Your task to perform on an android device: Open CNN.com Image 0: 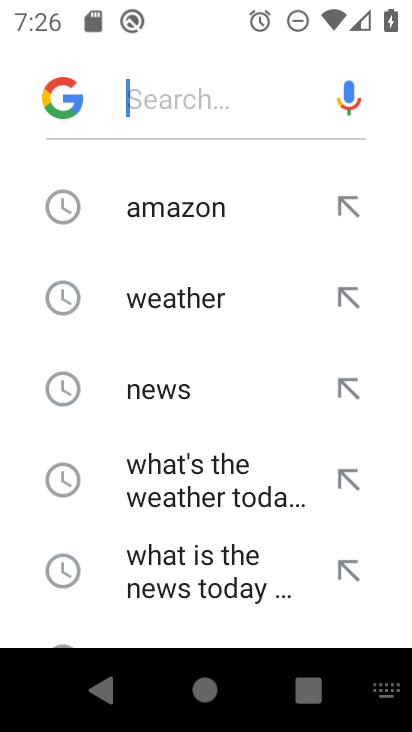
Step 0: press home button
Your task to perform on an android device: Open CNN.com Image 1: 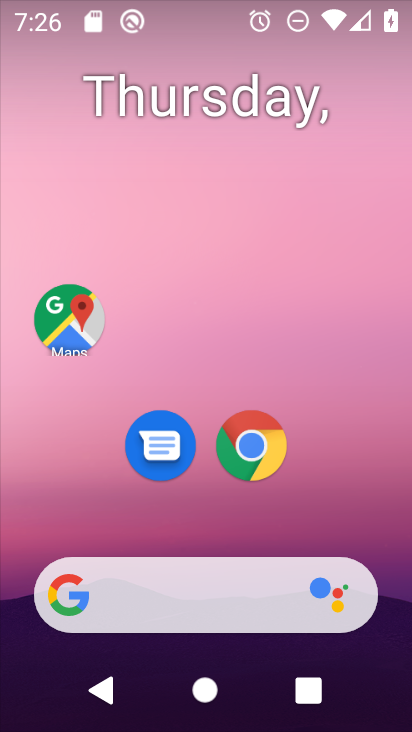
Step 1: click (256, 442)
Your task to perform on an android device: Open CNN.com Image 2: 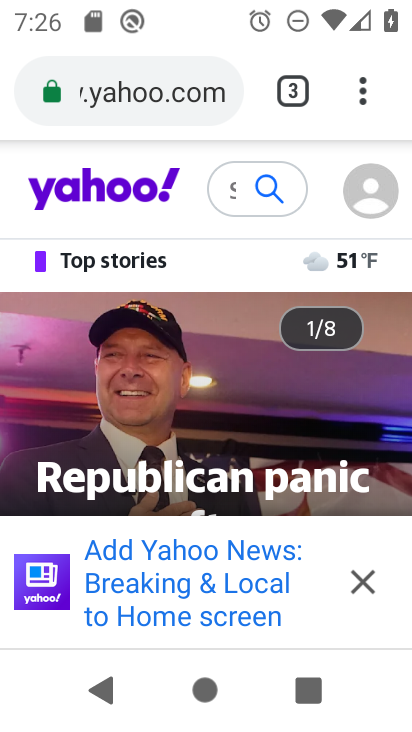
Step 2: click (363, 87)
Your task to perform on an android device: Open CNN.com Image 3: 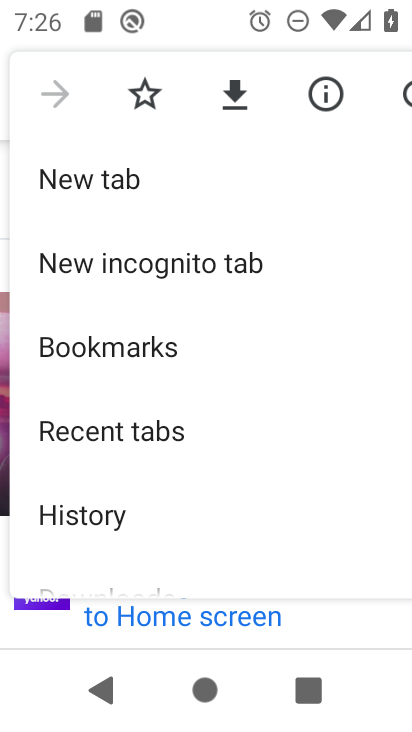
Step 3: click (106, 169)
Your task to perform on an android device: Open CNN.com Image 4: 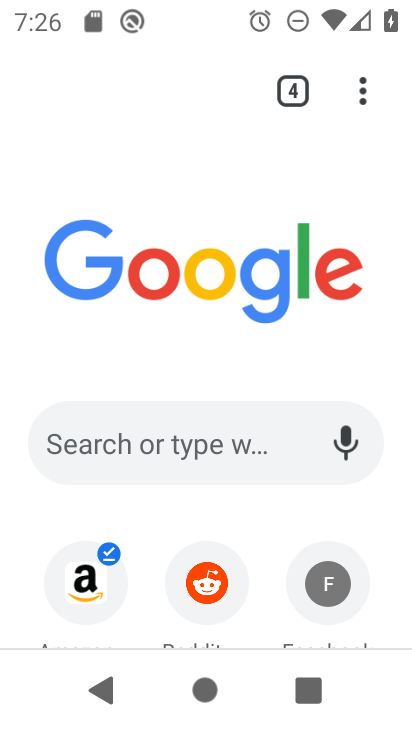
Step 4: click (165, 444)
Your task to perform on an android device: Open CNN.com Image 5: 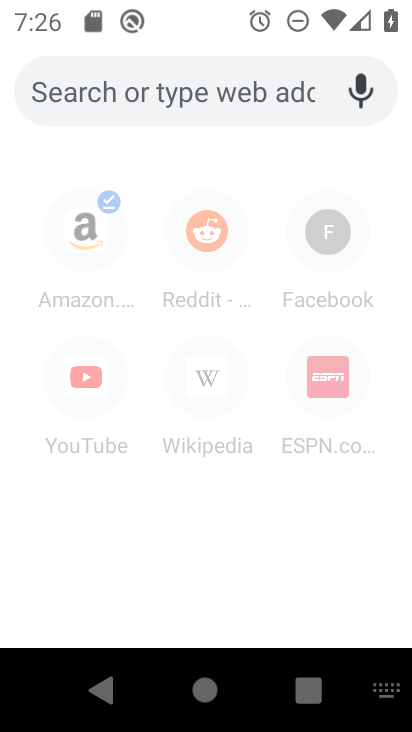
Step 5: type "cnn.com"
Your task to perform on an android device: Open CNN.com Image 6: 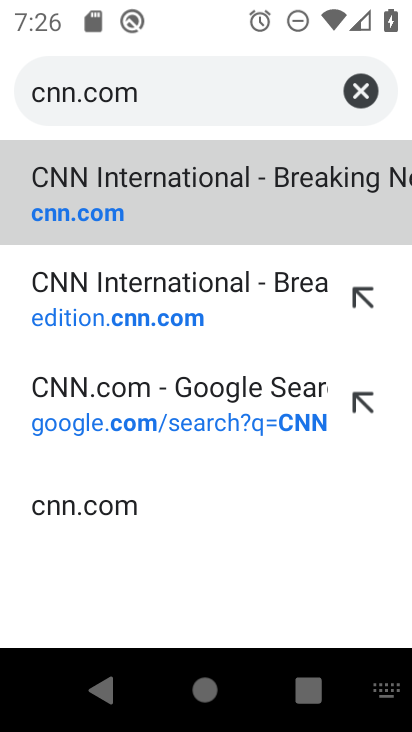
Step 6: click (87, 167)
Your task to perform on an android device: Open CNN.com Image 7: 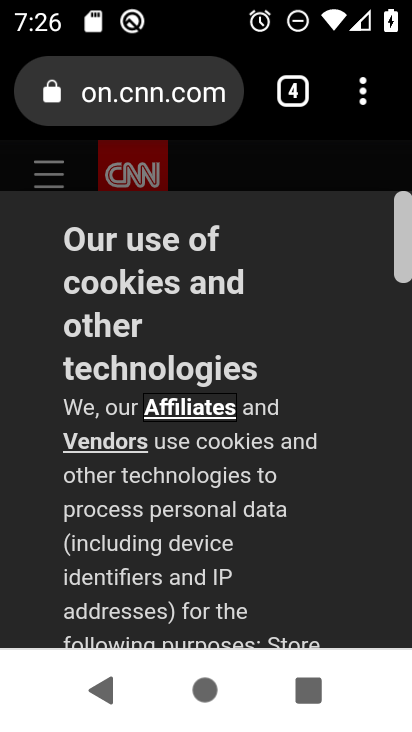
Step 7: task complete